Your task to perform on an android device: What is the recent news? Image 0: 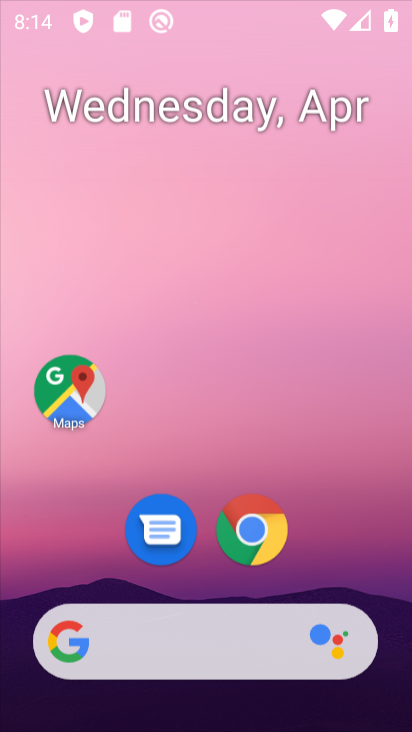
Step 0: click (317, 277)
Your task to perform on an android device: What is the recent news? Image 1: 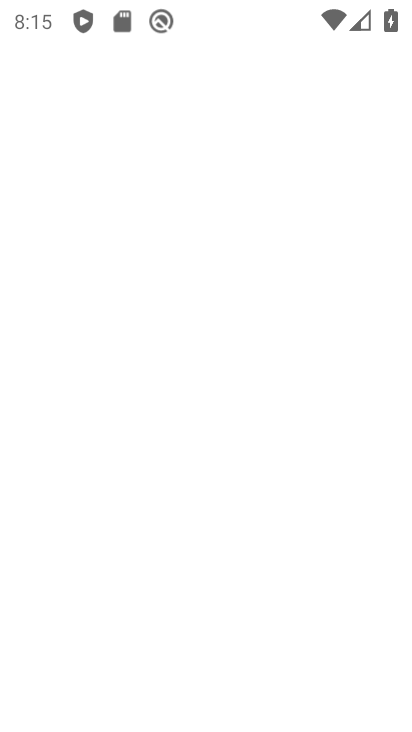
Step 1: press back button
Your task to perform on an android device: What is the recent news? Image 2: 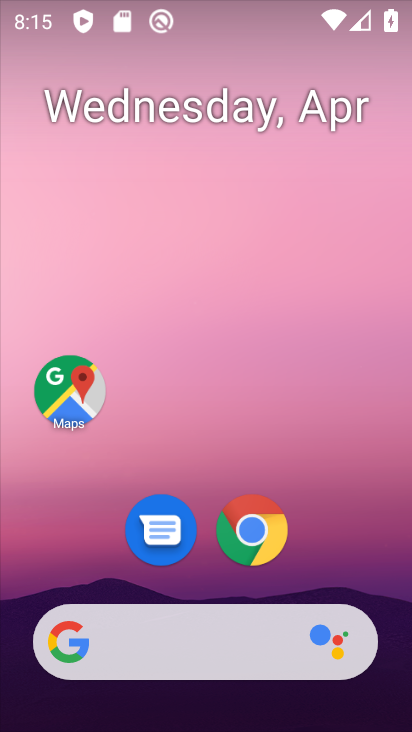
Step 2: click (253, 541)
Your task to perform on an android device: What is the recent news? Image 3: 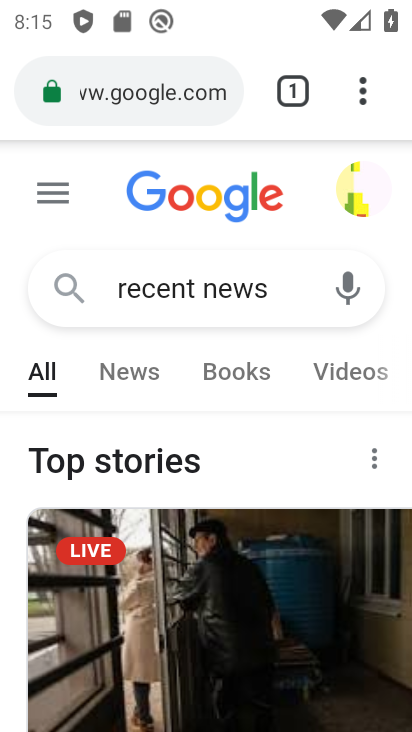
Step 3: task complete